Your task to perform on an android device: Go to battery settings Image 0: 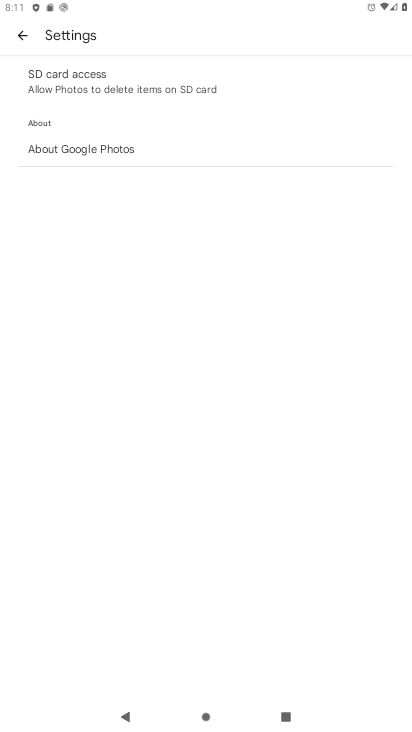
Step 0: press home button
Your task to perform on an android device: Go to battery settings Image 1: 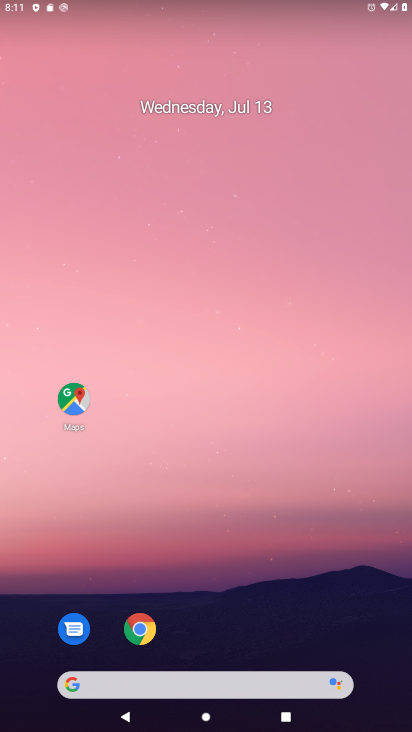
Step 1: drag from (300, 652) to (345, 5)
Your task to perform on an android device: Go to battery settings Image 2: 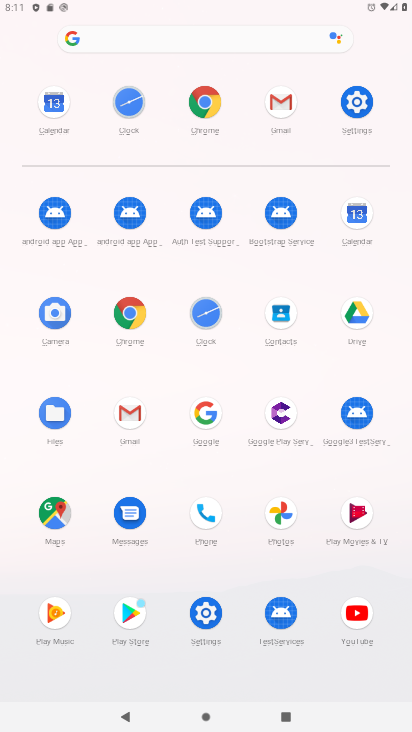
Step 2: click (355, 118)
Your task to perform on an android device: Go to battery settings Image 3: 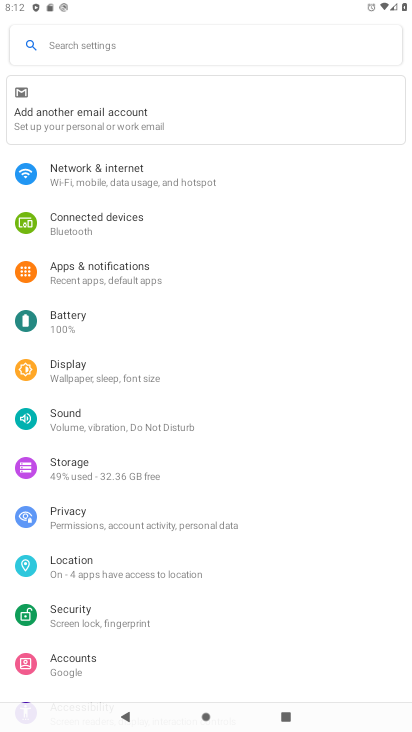
Step 3: click (84, 319)
Your task to perform on an android device: Go to battery settings Image 4: 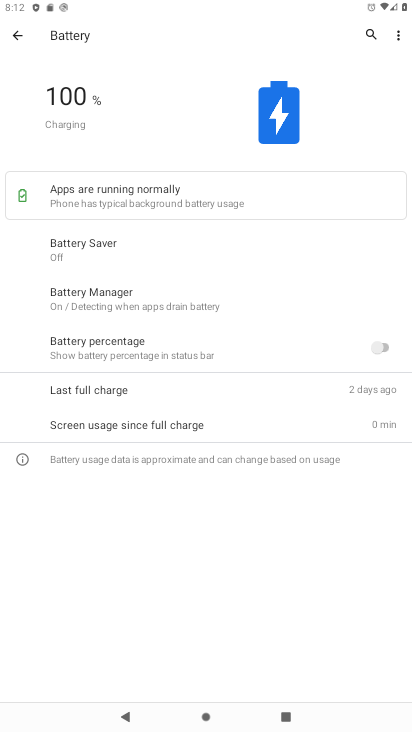
Step 4: task complete